Your task to perform on an android device: refresh tabs in the chrome app Image 0: 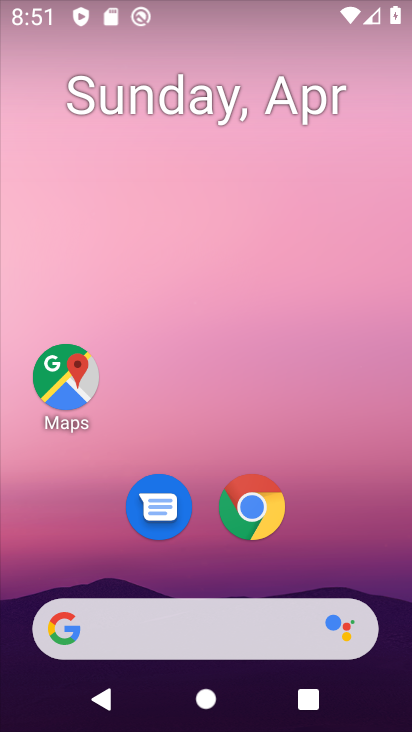
Step 0: drag from (240, 568) to (247, 10)
Your task to perform on an android device: refresh tabs in the chrome app Image 1: 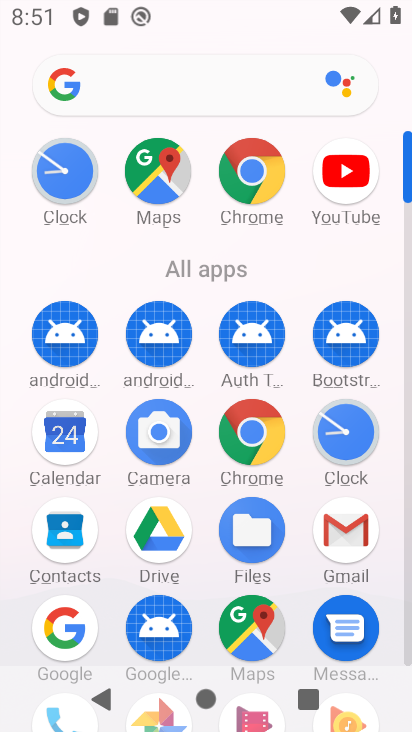
Step 1: click (243, 455)
Your task to perform on an android device: refresh tabs in the chrome app Image 2: 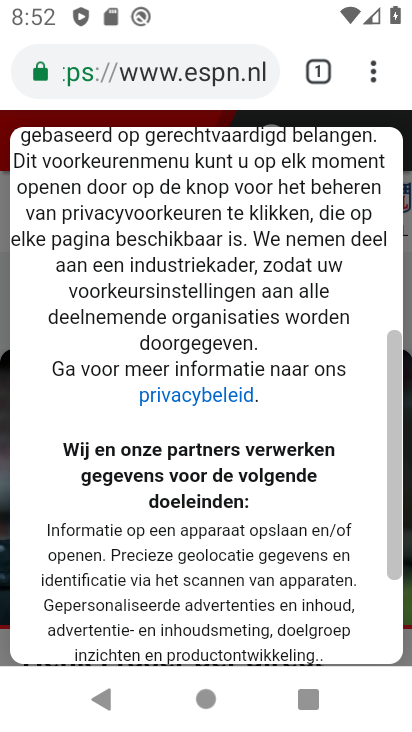
Step 2: click (372, 75)
Your task to perform on an android device: refresh tabs in the chrome app Image 3: 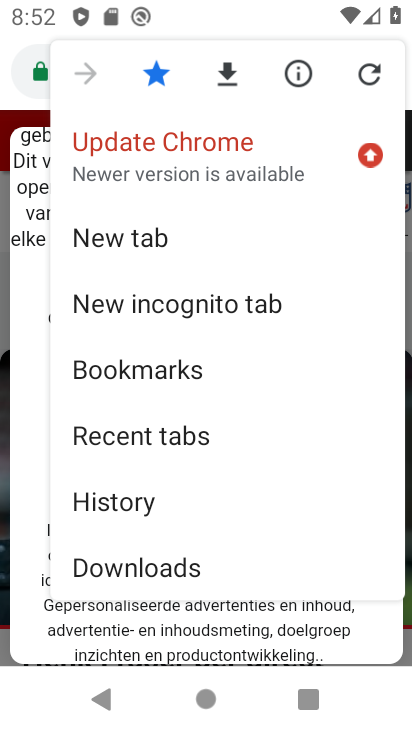
Step 3: task complete